Your task to perform on an android device: Search for logitech g903 on bestbuy.com, select the first entry, add it to the cart, then select checkout. Image 0: 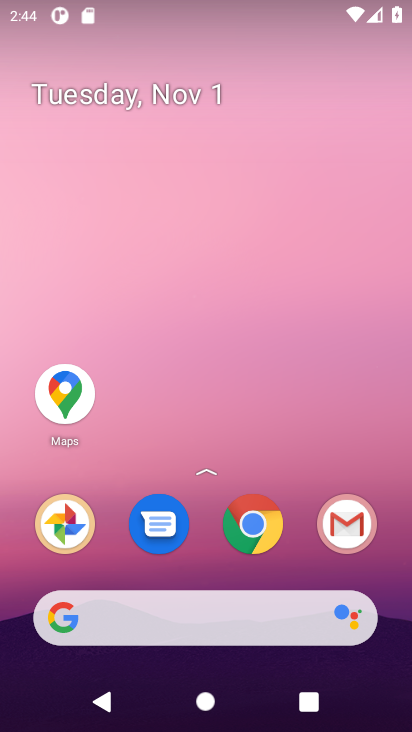
Step 0: click (249, 520)
Your task to perform on an android device: Search for logitech g903 on bestbuy.com, select the first entry, add it to the cart, then select checkout. Image 1: 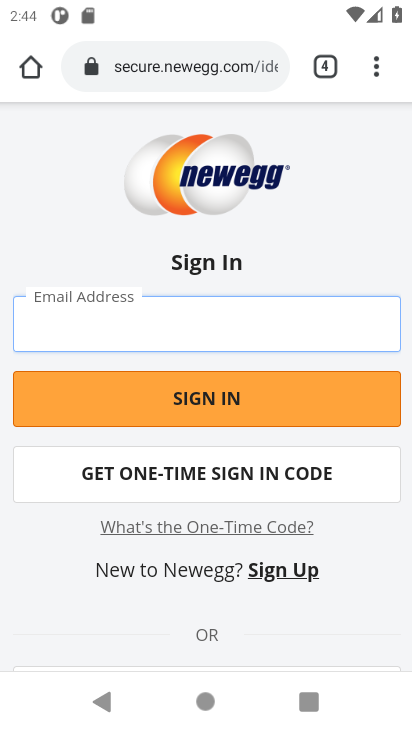
Step 1: click (188, 44)
Your task to perform on an android device: Search for logitech g903 on bestbuy.com, select the first entry, add it to the cart, then select checkout. Image 2: 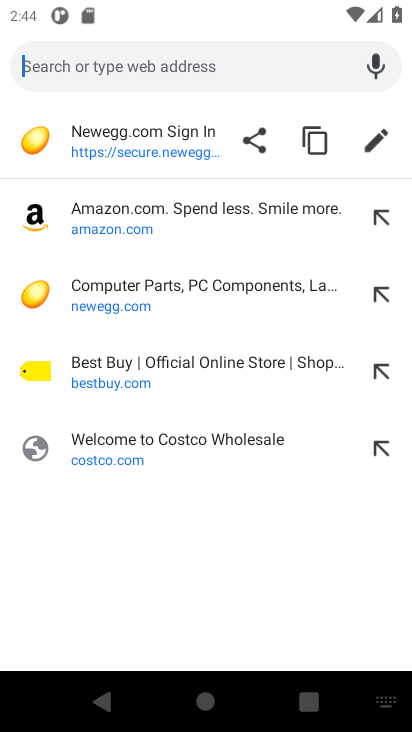
Step 2: click (105, 370)
Your task to perform on an android device: Search for logitech g903 on bestbuy.com, select the first entry, add it to the cart, then select checkout. Image 3: 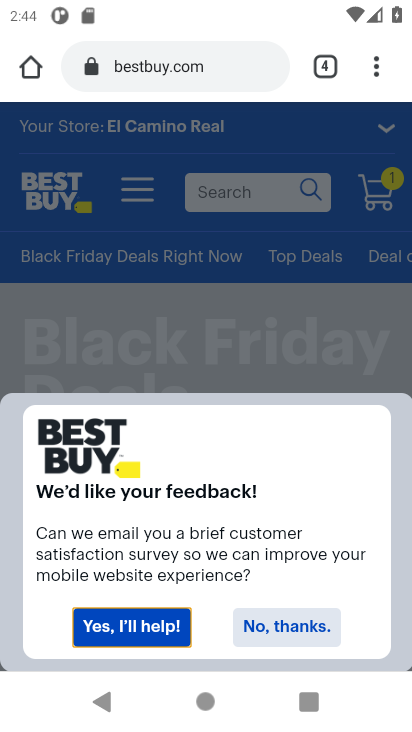
Step 3: click (280, 624)
Your task to perform on an android device: Search for logitech g903 on bestbuy.com, select the first entry, add it to the cart, then select checkout. Image 4: 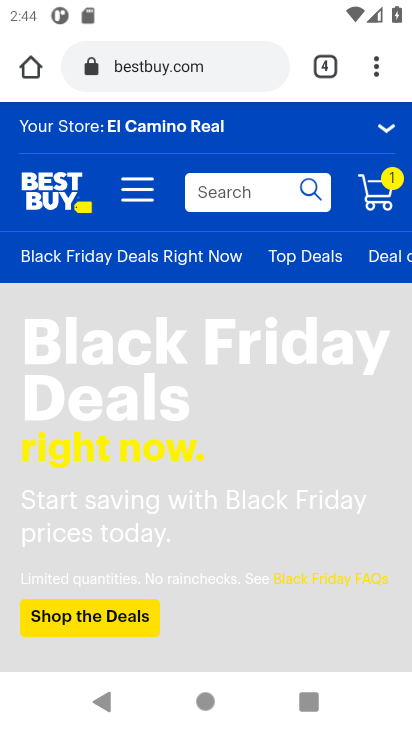
Step 4: click (228, 193)
Your task to perform on an android device: Search for logitech g903 on bestbuy.com, select the first entry, add it to the cart, then select checkout. Image 5: 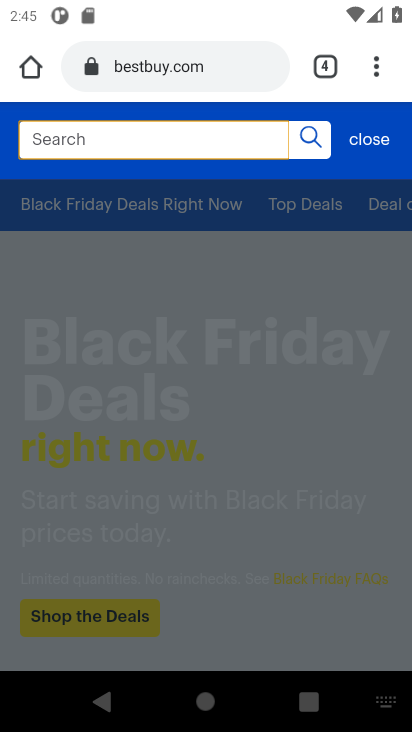
Step 5: type "logitech g903 "
Your task to perform on an android device: Search for logitech g903 on bestbuy.com, select the first entry, add it to the cart, then select checkout. Image 6: 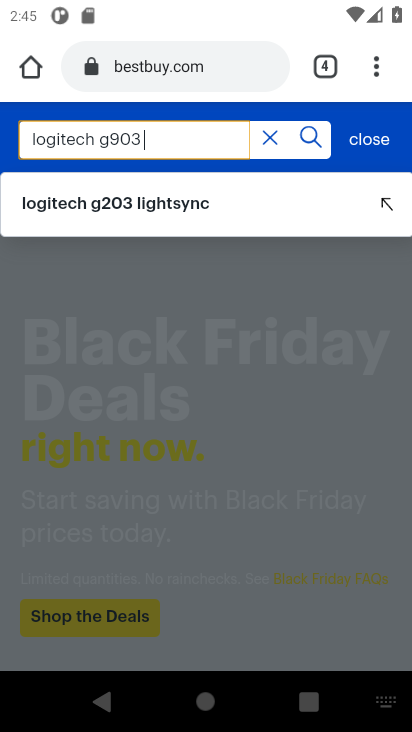
Step 6: click (308, 136)
Your task to perform on an android device: Search for logitech g903 on bestbuy.com, select the first entry, add it to the cart, then select checkout. Image 7: 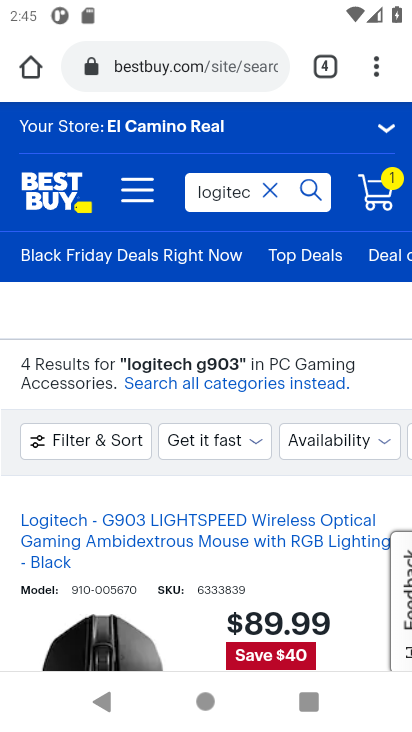
Step 7: drag from (233, 586) to (185, 285)
Your task to perform on an android device: Search for logitech g903 on bestbuy.com, select the first entry, add it to the cart, then select checkout. Image 8: 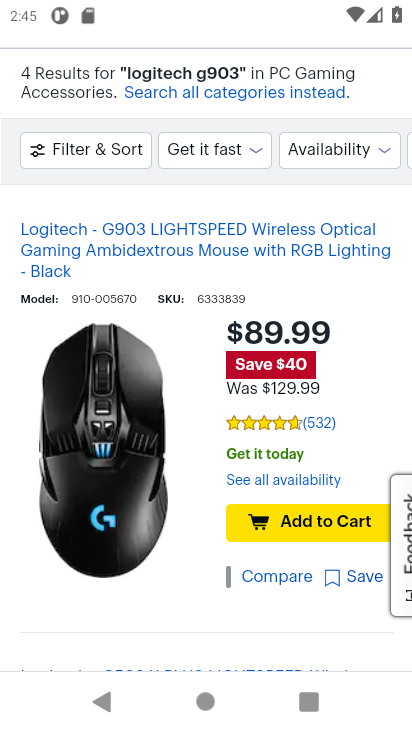
Step 8: click (223, 588)
Your task to perform on an android device: Search for logitech g903 on bestbuy.com, select the first entry, add it to the cart, then select checkout. Image 9: 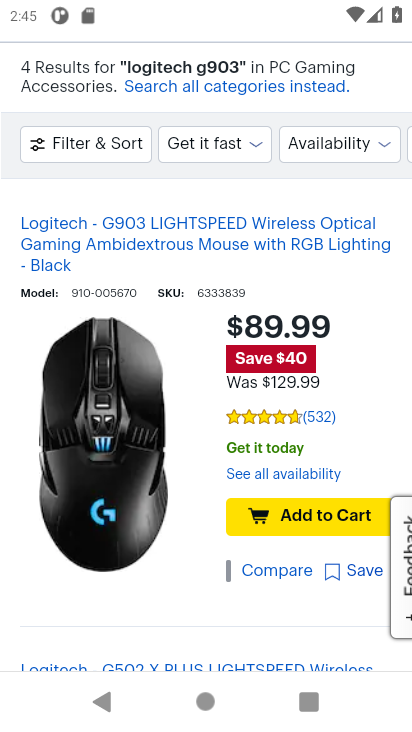
Step 9: click (300, 513)
Your task to perform on an android device: Search for logitech g903 on bestbuy.com, select the first entry, add it to the cart, then select checkout. Image 10: 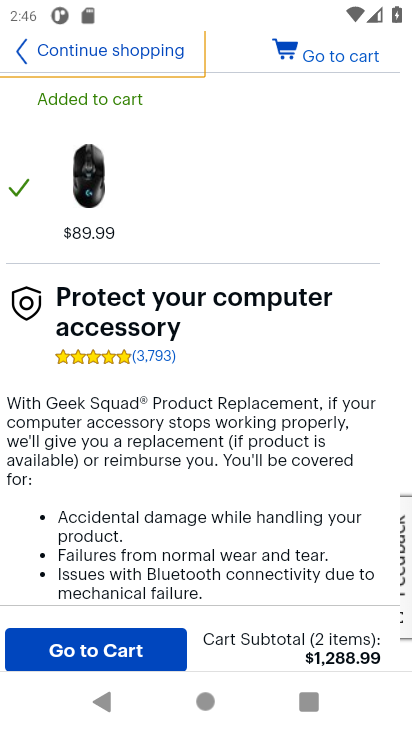
Step 10: click (96, 647)
Your task to perform on an android device: Search for logitech g903 on bestbuy.com, select the first entry, add it to the cart, then select checkout. Image 11: 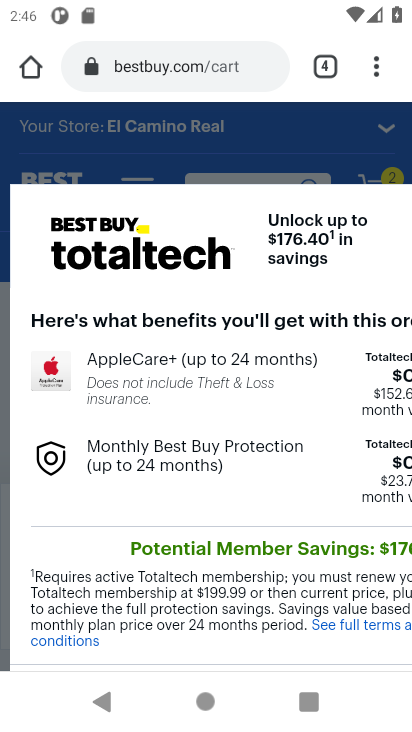
Step 11: drag from (399, 240) to (184, 238)
Your task to perform on an android device: Search for logitech g903 on bestbuy.com, select the first entry, add it to the cart, then select checkout. Image 12: 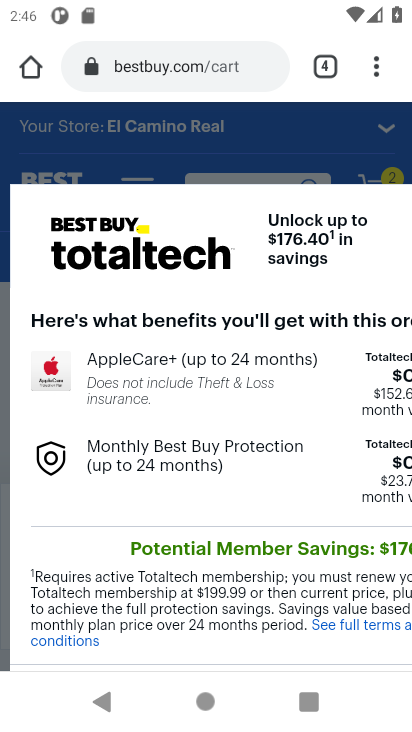
Step 12: drag from (373, 268) to (126, 280)
Your task to perform on an android device: Search for logitech g903 on bestbuy.com, select the first entry, add it to the cart, then select checkout. Image 13: 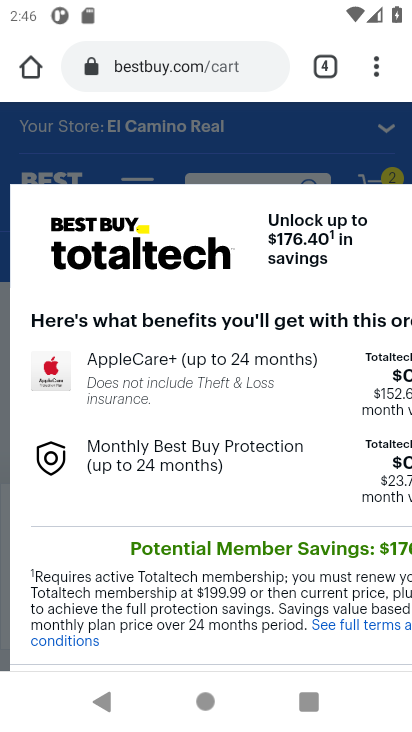
Step 13: drag from (280, 628) to (225, 306)
Your task to perform on an android device: Search for logitech g903 on bestbuy.com, select the first entry, add it to the cart, then select checkout. Image 14: 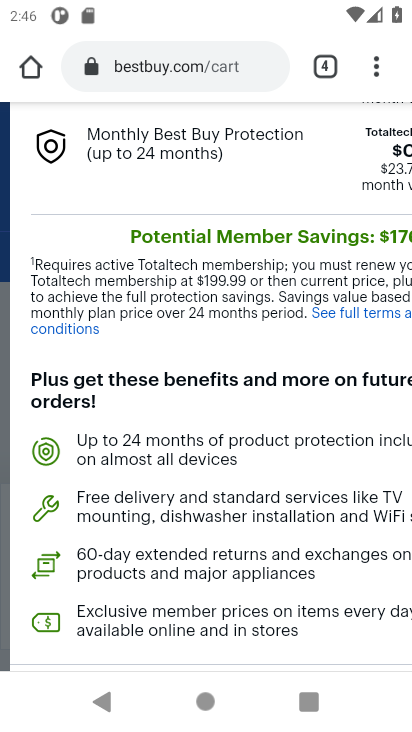
Step 14: drag from (318, 610) to (23, 400)
Your task to perform on an android device: Search for logitech g903 on bestbuy.com, select the first entry, add it to the cart, then select checkout. Image 15: 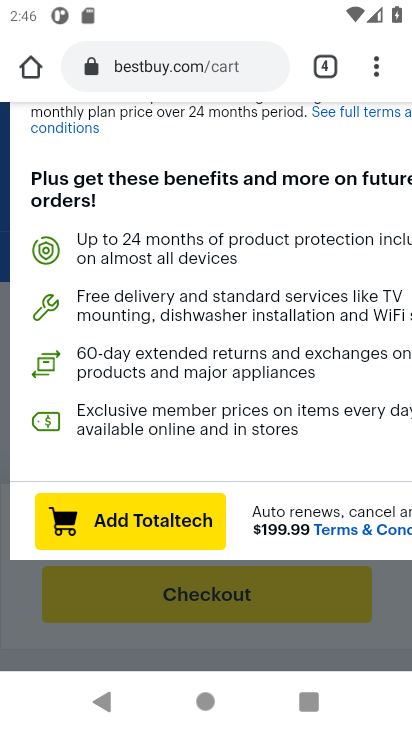
Step 15: drag from (322, 253) to (272, 561)
Your task to perform on an android device: Search for logitech g903 on bestbuy.com, select the first entry, add it to the cart, then select checkout. Image 16: 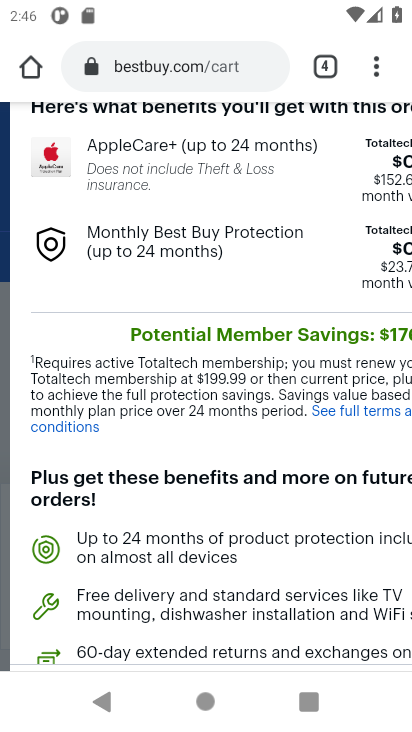
Step 16: drag from (252, 256) to (242, 578)
Your task to perform on an android device: Search for logitech g903 on bestbuy.com, select the first entry, add it to the cart, then select checkout. Image 17: 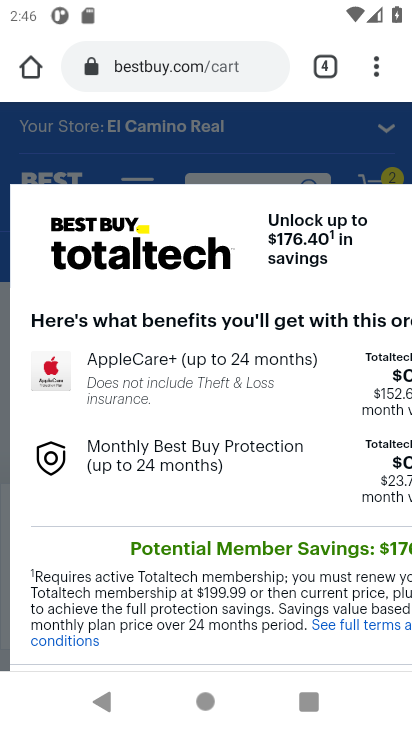
Step 17: drag from (393, 246) to (59, 266)
Your task to perform on an android device: Search for logitech g903 on bestbuy.com, select the first entry, add it to the cart, then select checkout. Image 18: 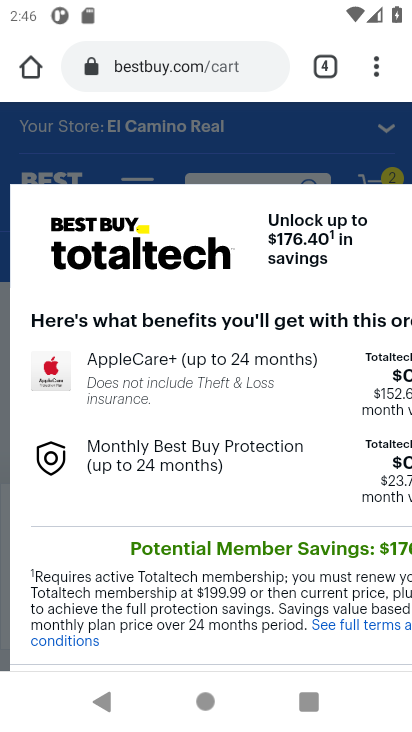
Step 18: click (234, 143)
Your task to perform on an android device: Search for logitech g903 on bestbuy.com, select the first entry, add it to the cart, then select checkout. Image 19: 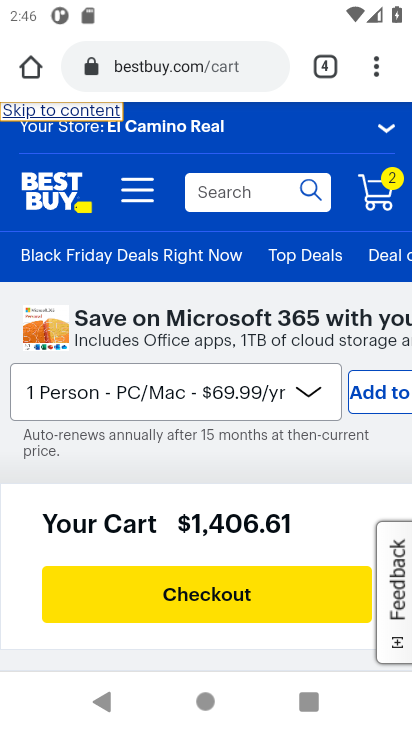
Step 19: click (195, 589)
Your task to perform on an android device: Search for logitech g903 on bestbuy.com, select the first entry, add it to the cart, then select checkout. Image 20: 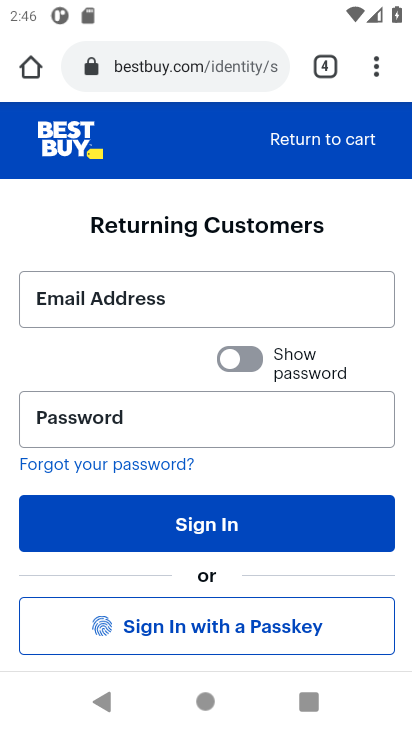
Step 20: task complete